Your task to perform on an android device: Do I have any events this weekend? Image 0: 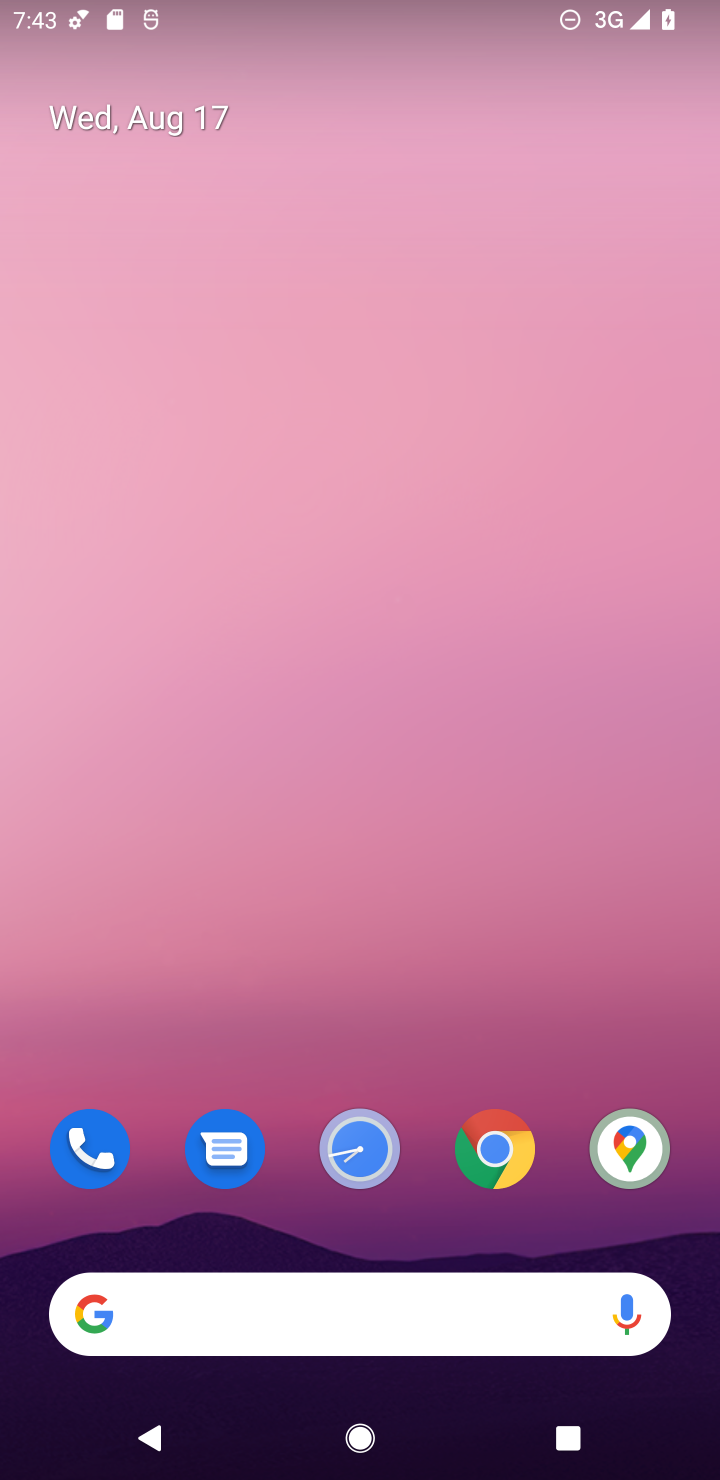
Step 0: drag from (431, 1221) to (351, 452)
Your task to perform on an android device: Do I have any events this weekend? Image 1: 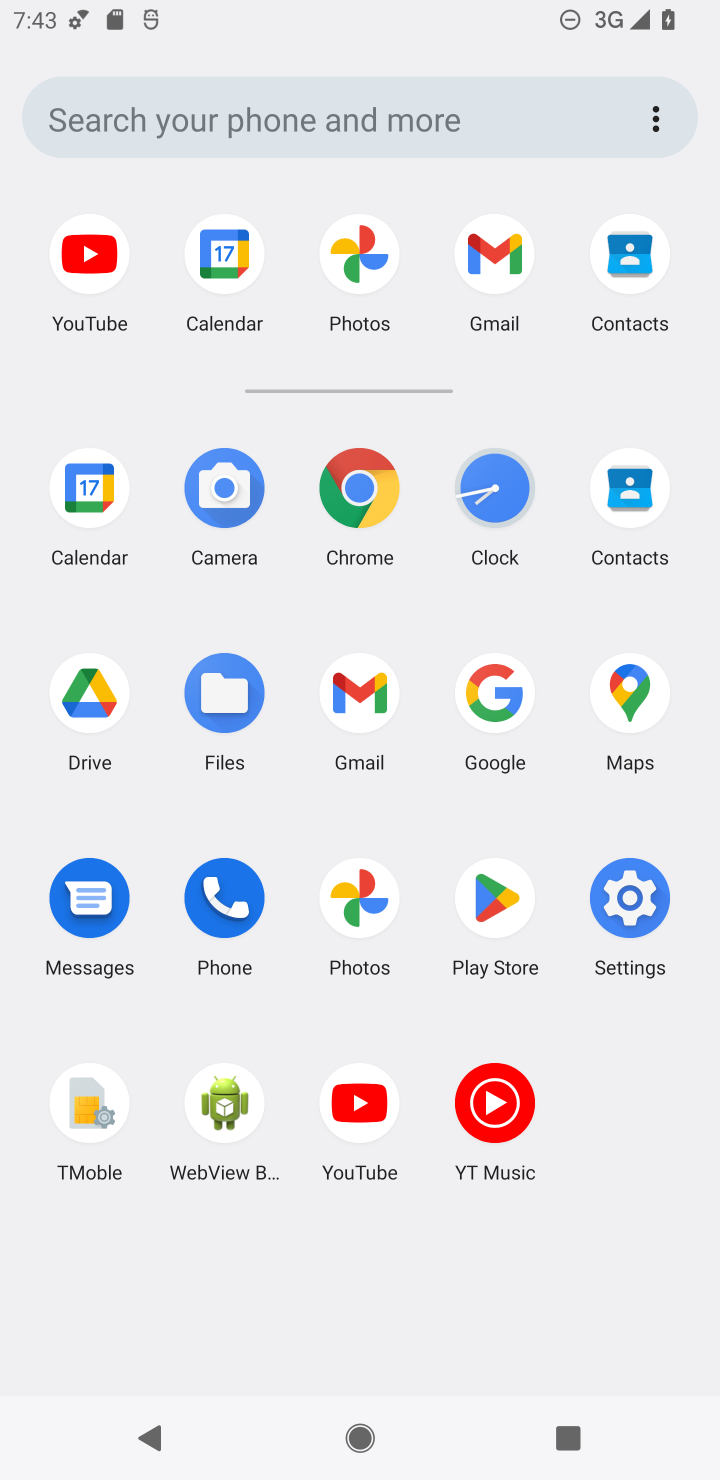
Step 1: click (82, 493)
Your task to perform on an android device: Do I have any events this weekend? Image 2: 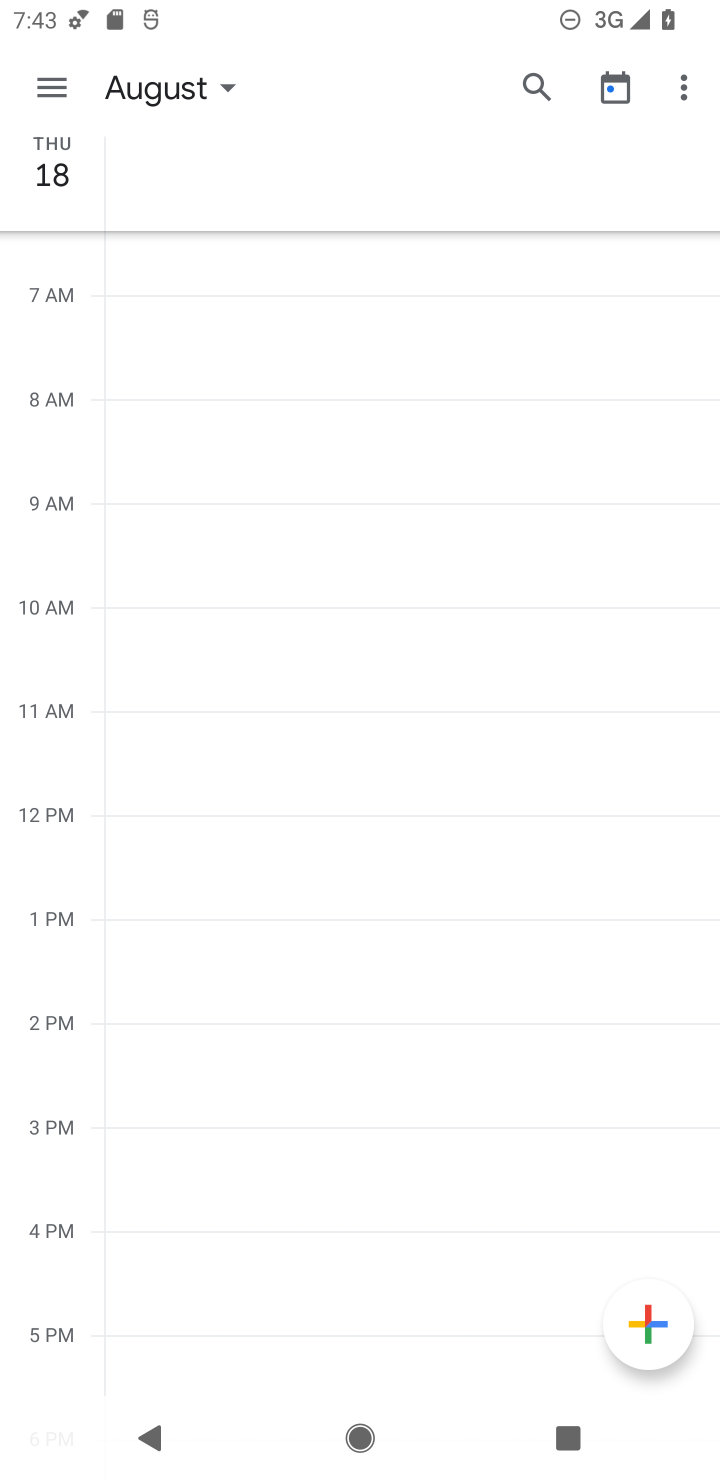
Step 2: click (50, 85)
Your task to perform on an android device: Do I have any events this weekend? Image 3: 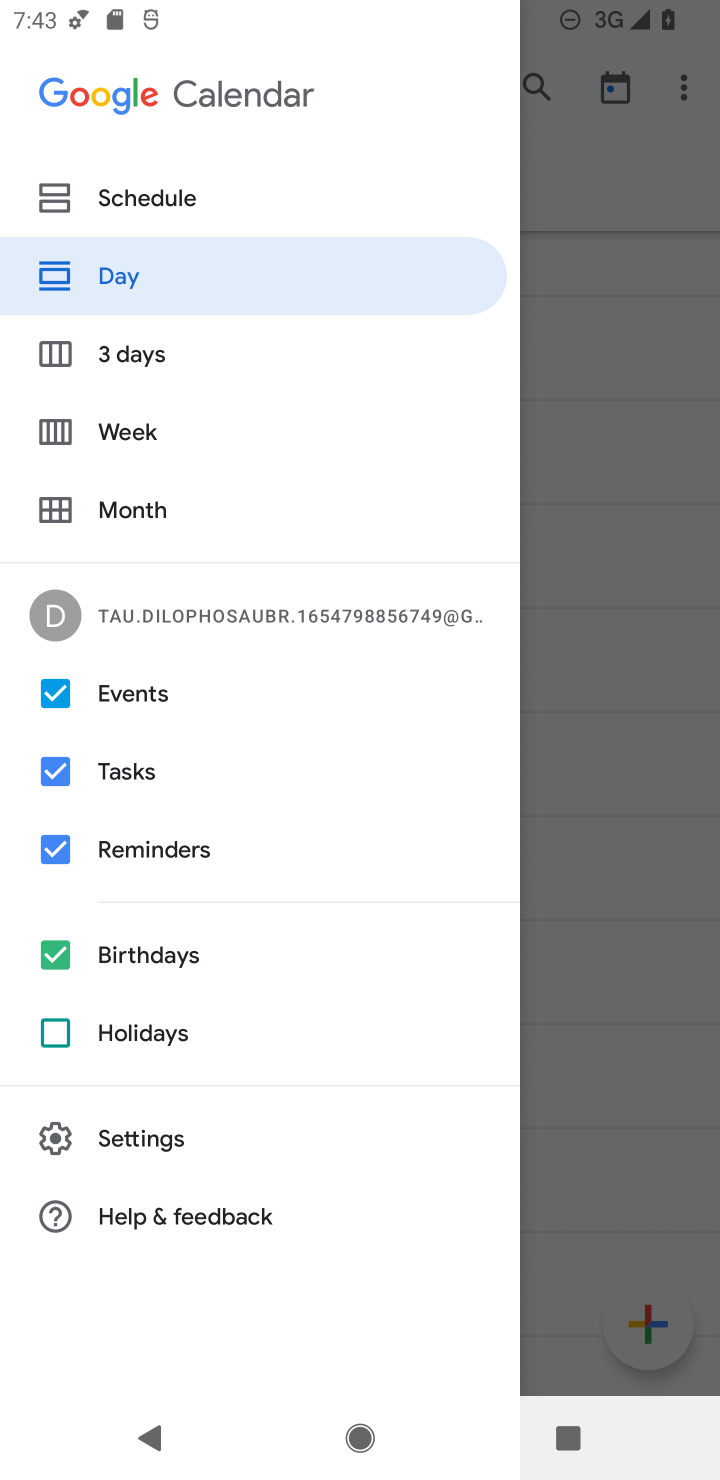
Step 3: click (131, 419)
Your task to perform on an android device: Do I have any events this weekend? Image 4: 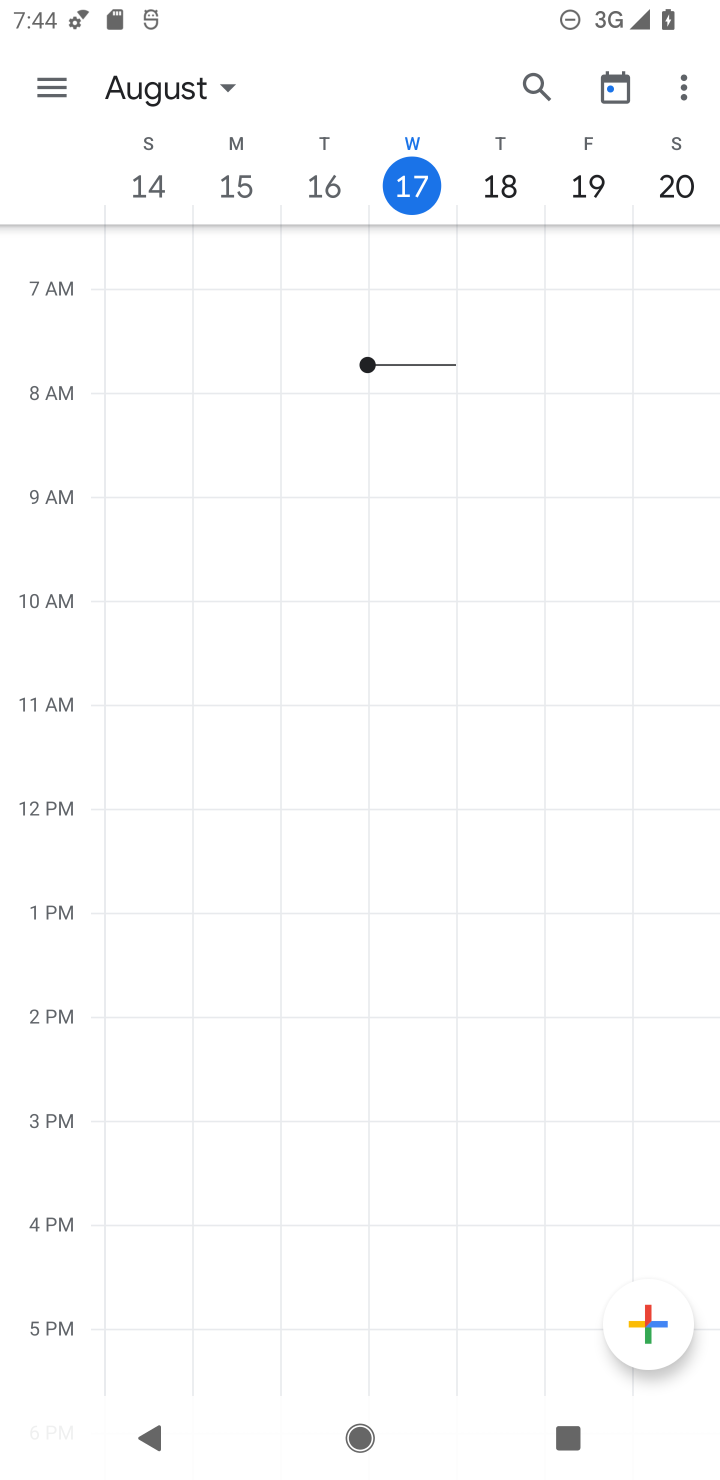
Step 4: task complete